Your task to perform on an android device: Check the news Image 0: 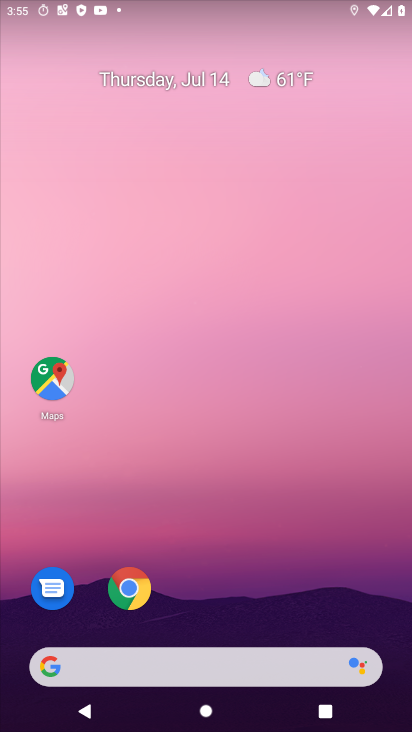
Step 0: drag from (230, 674) to (235, 253)
Your task to perform on an android device: Check the news Image 1: 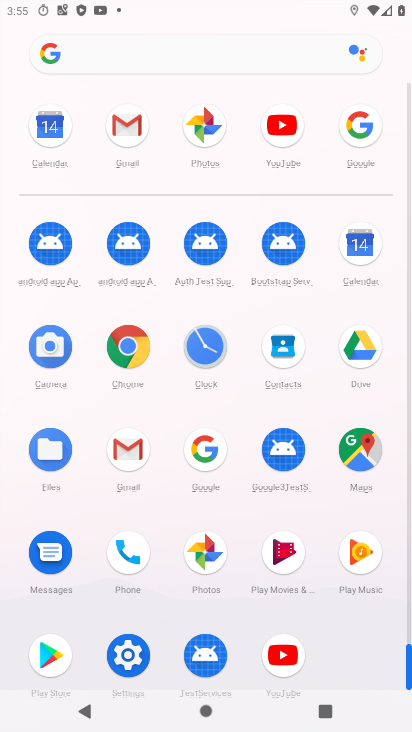
Step 1: click (360, 125)
Your task to perform on an android device: Check the news Image 2: 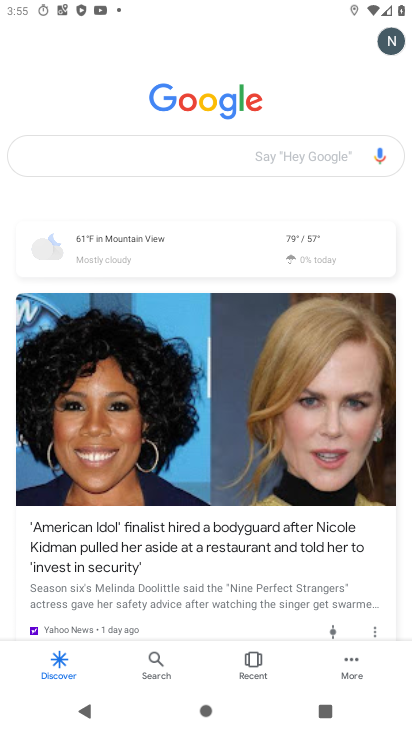
Step 2: click (264, 161)
Your task to perform on an android device: Check the news Image 3: 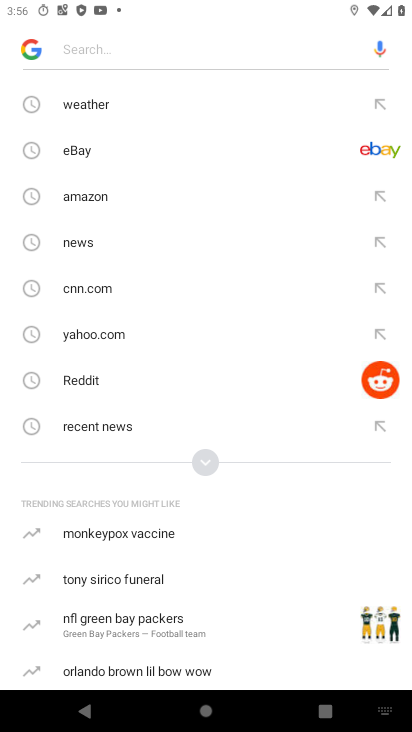
Step 3: click (82, 239)
Your task to perform on an android device: Check the news Image 4: 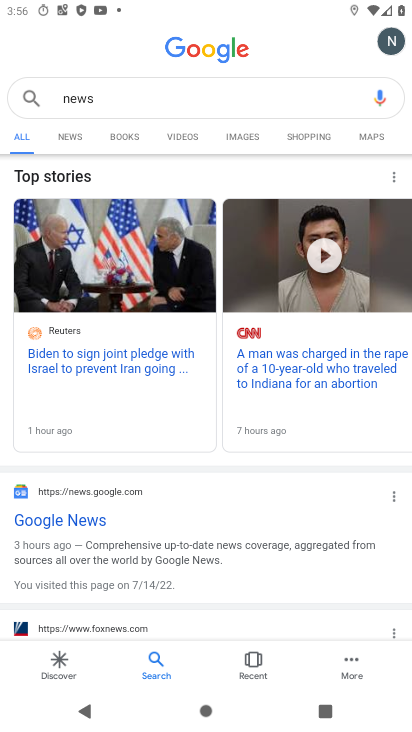
Step 4: click (104, 367)
Your task to perform on an android device: Check the news Image 5: 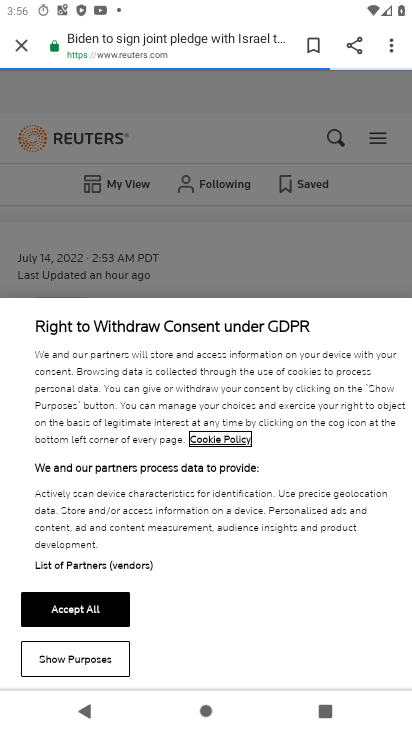
Step 5: task complete